Your task to perform on an android device: Go to eBay Image 0: 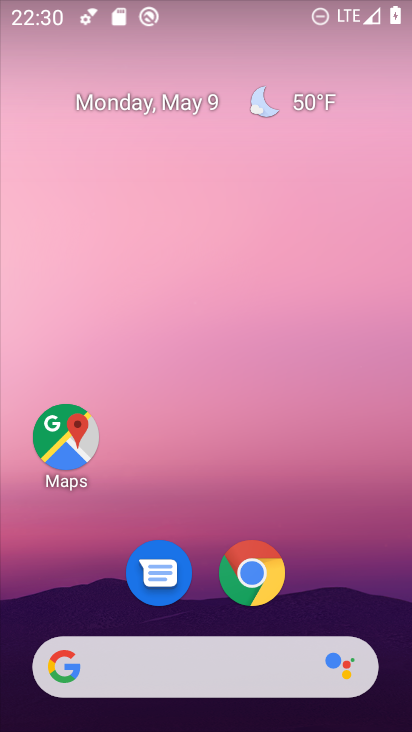
Step 0: click (251, 576)
Your task to perform on an android device: Go to eBay Image 1: 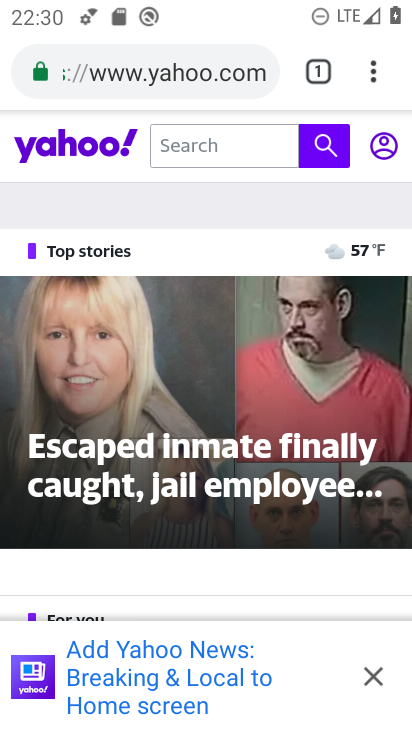
Step 1: click (191, 81)
Your task to perform on an android device: Go to eBay Image 2: 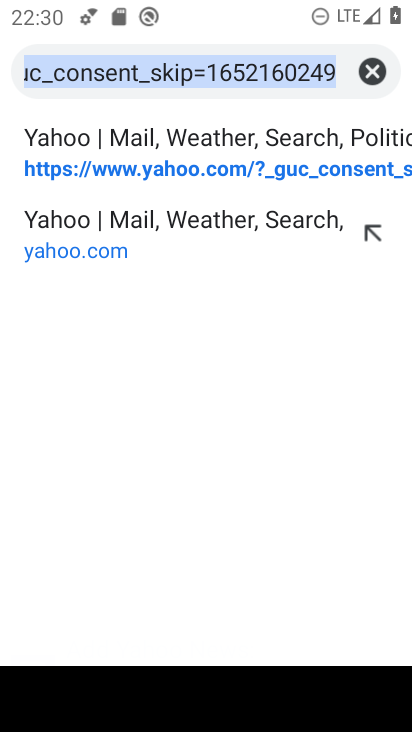
Step 2: type "ebay"
Your task to perform on an android device: Go to eBay Image 3: 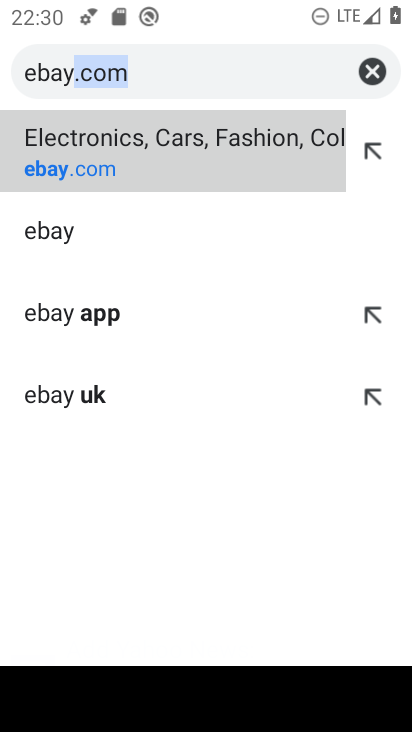
Step 3: click (76, 165)
Your task to perform on an android device: Go to eBay Image 4: 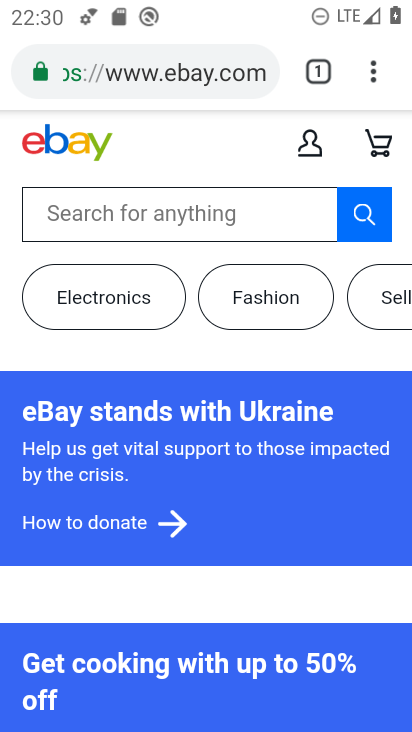
Step 4: task complete